Your task to perform on an android device: delete browsing data in the chrome app Image 0: 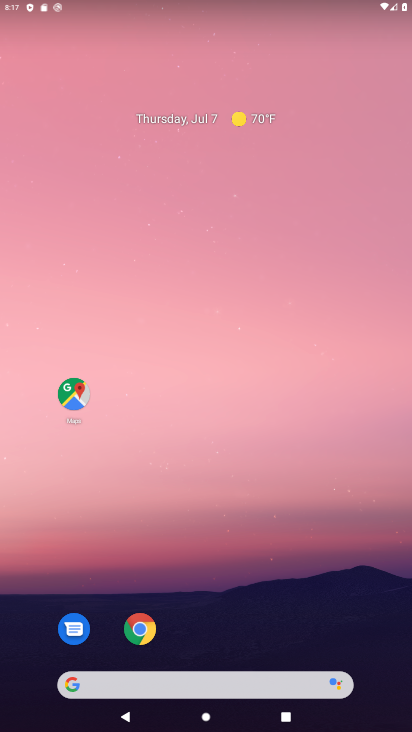
Step 0: drag from (222, 623) to (294, 236)
Your task to perform on an android device: delete browsing data in the chrome app Image 1: 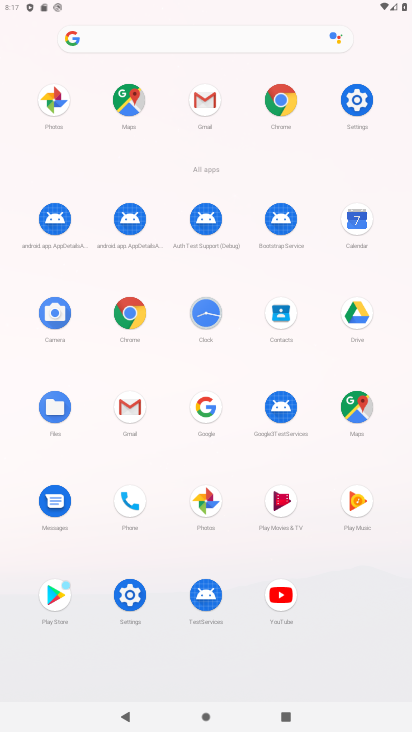
Step 1: click (134, 326)
Your task to perform on an android device: delete browsing data in the chrome app Image 2: 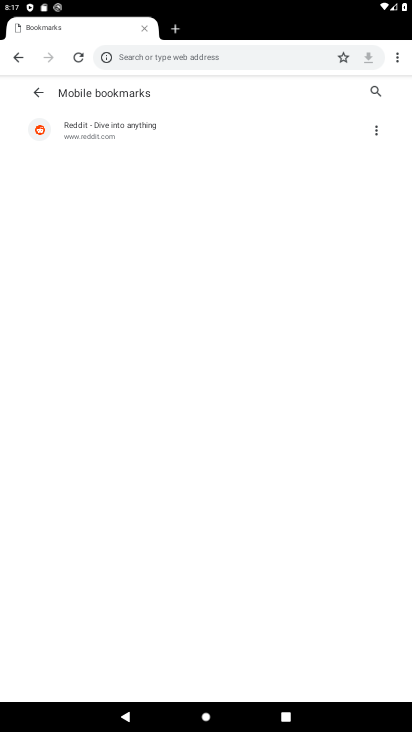
Step 2: press back button
Your task to perform on an android device: delete browsing data in the chrome app Image 3: 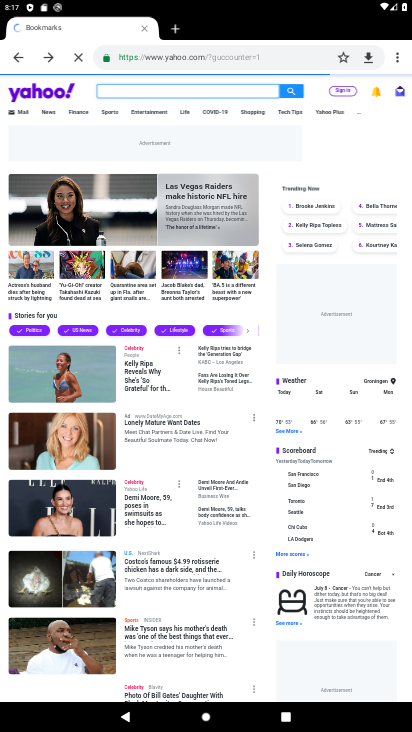
Step 3: drag from (397, 53) to (321, 345)
Your task to perform on an android device: delete browsing data in the chrome app Image 4: 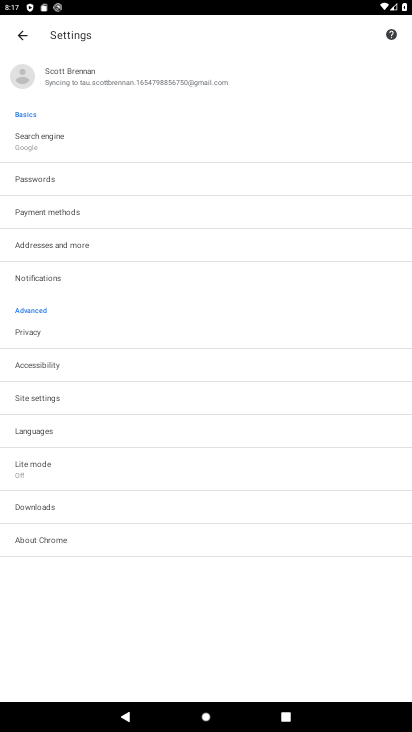
Step 4: click (50, 331)
Your task to perform on an android device: delete browsing data in the chrome app Image 5: 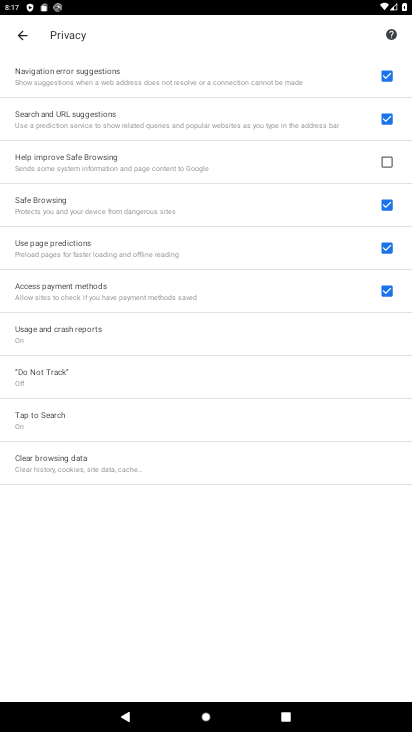
Step 5: click (125, 473)
Your task to perform on an android device: delete browsing data in the chrome app Image 6: 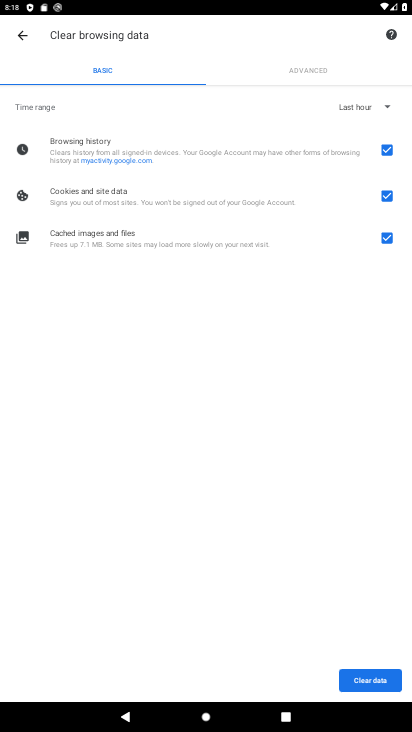
Step 6: click (385, 679)
Your task to perform on an android device: delete browsing data in the chrome app Image 7: 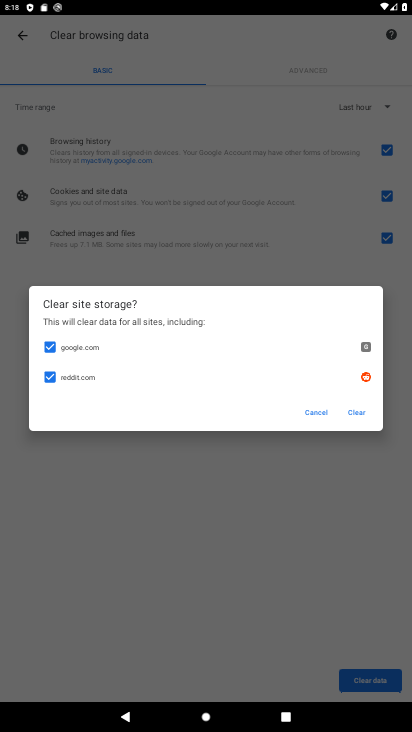
Step 7: click (363, 415)
Your task to perform on an android device: delete browsing data in the chrome app Image 8: 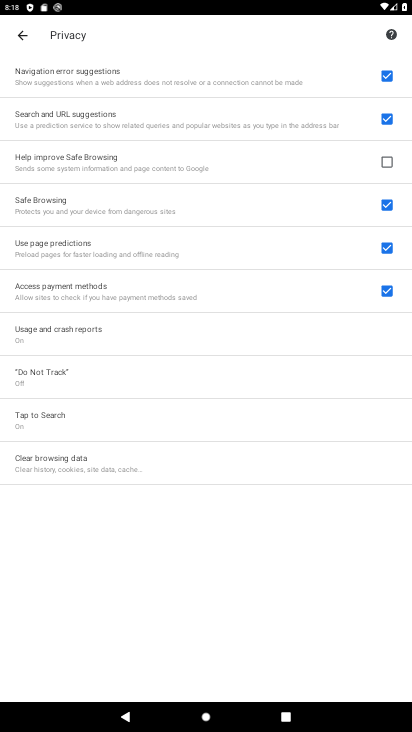
Step 8: task complete